Your task to perform on an android device: Toggle the flashlight Image 0: 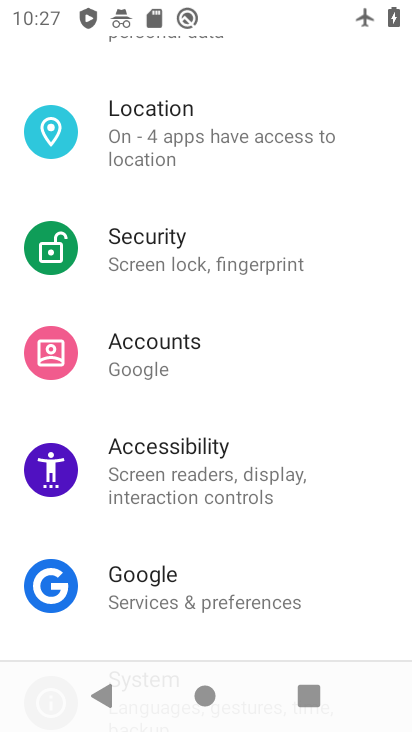
Step 0: press home button
Your task to perform on an android device: Toggle the flashlight Image 1: 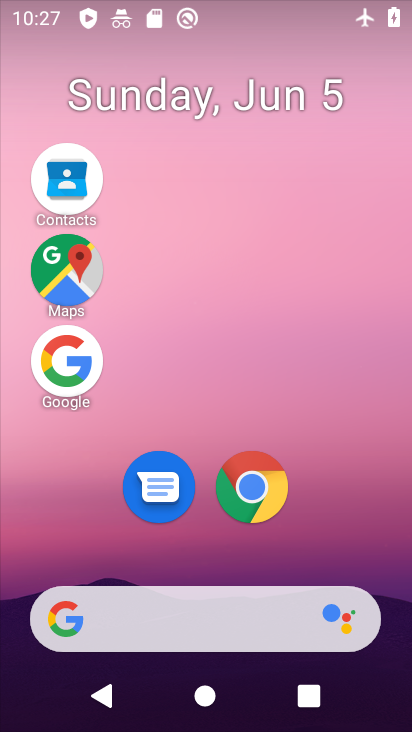
Step 1: task complete